Your task to perform on an android device: Find coffee shops on Maps Image 0: 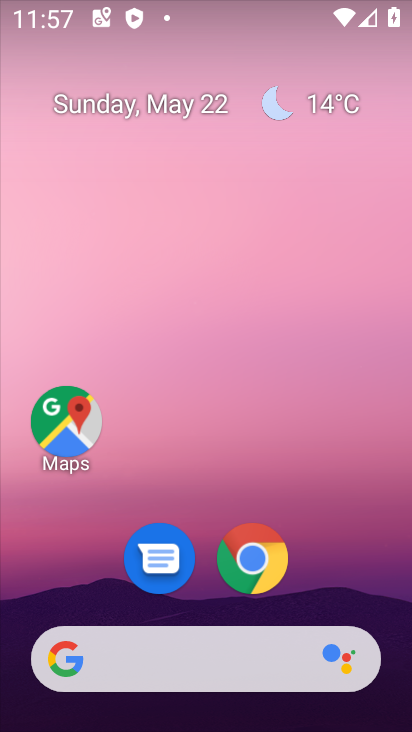
Step 0: click (68, 420)
Your task to perform on an android device: Find coffee shops on Maps Image 1: 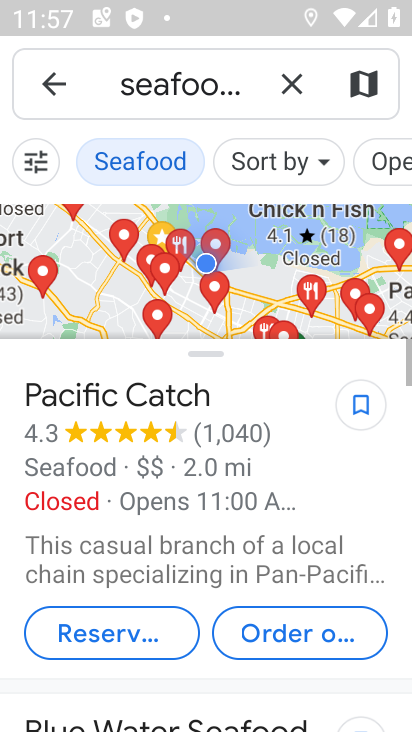
Step 1: click (300, 85)
Your task to perform on an android device: Find coffee shops on Maps Image 2: 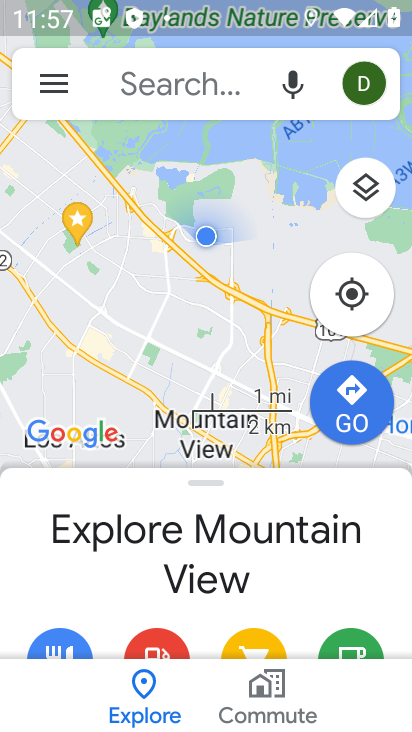
Step 2: click (121, 81)
Your task to perform on an android device: Find coffee shops on Maps Image 3: 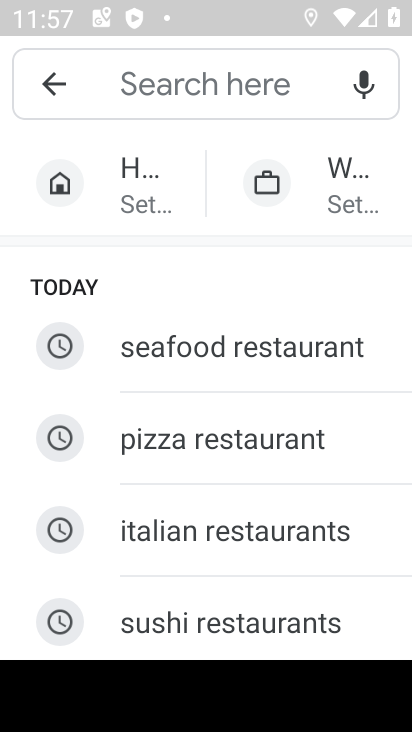
Step 3: type "coffee shops"
Your task to perform on an android device: Find coffee shops on Maps Image 4: 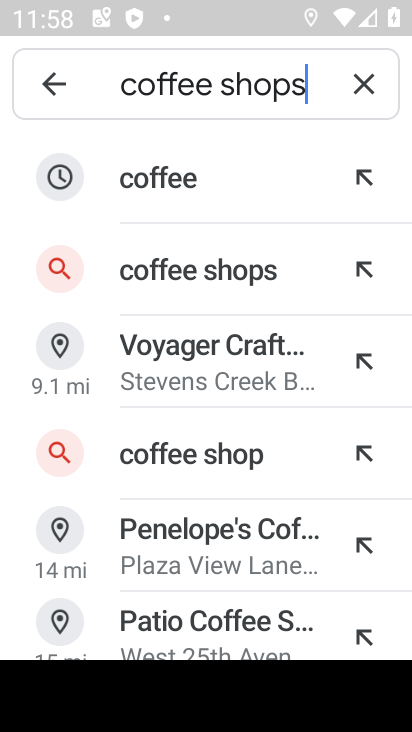
Step 4: click (196, 274)
Your task to perform on an android device: Find coffee shops on Maps Image 5: 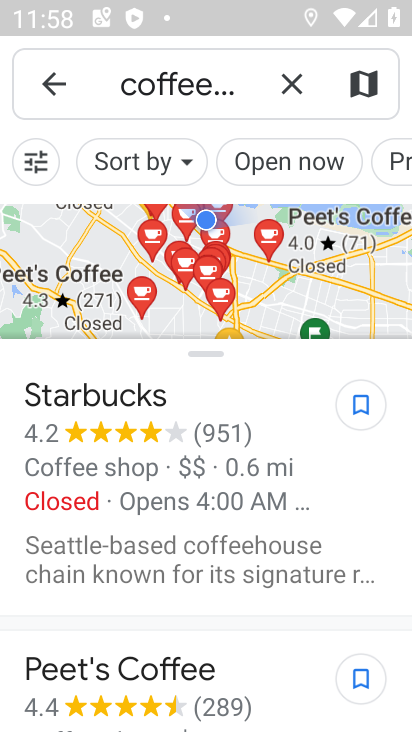
Step 5: task complete